Your task to perform on an android device: Open privacy settings Image 0: 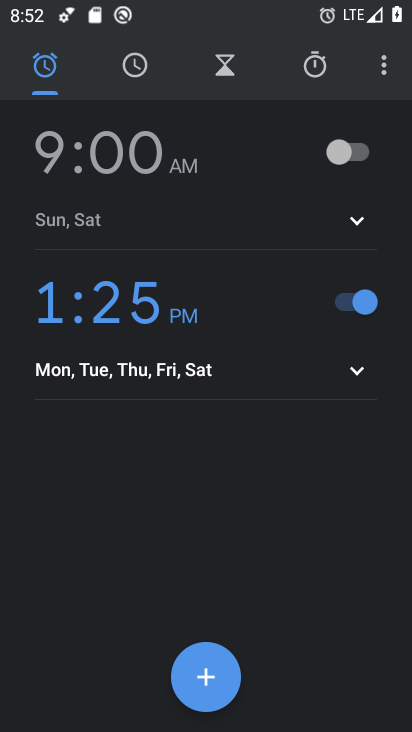
Step 0: press home button
Your task to perform on an android device: Open privacy settings Image 1: 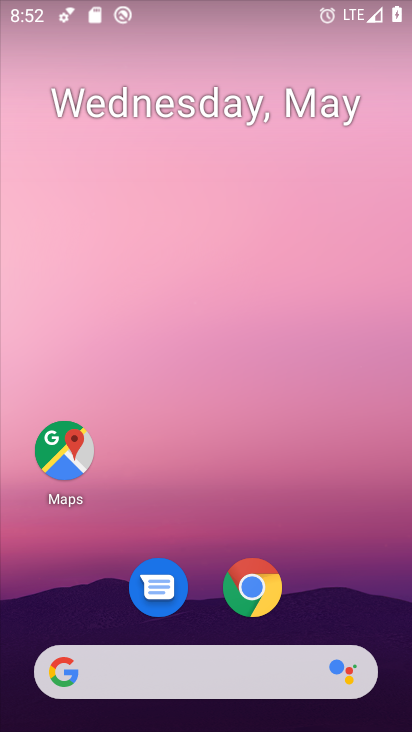
Step 1: drag from (206, 501) to (253, 7)
Your task to perform on an android device: Open privacy settings Image 2: 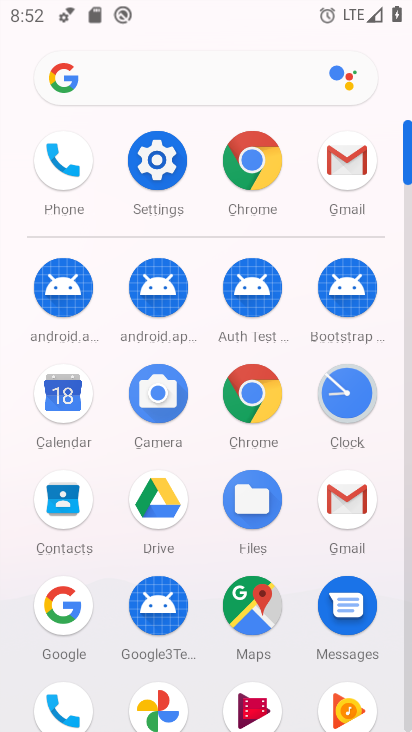
Step 2: click (151, 168)
Your task to perform on an android device: Open privacy settings Image 3: 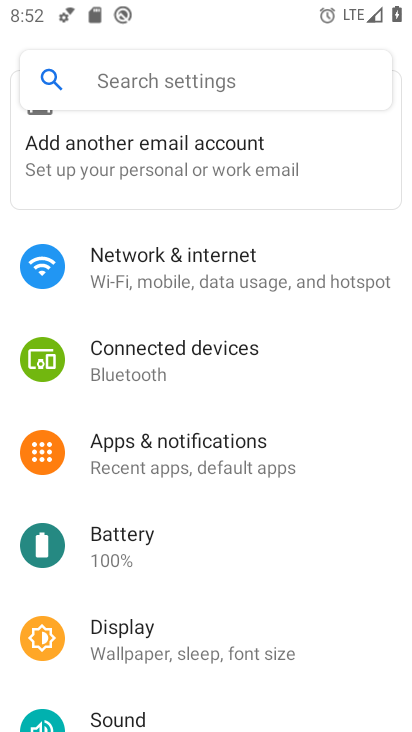
Step 3: drag from (134, 562) to (171, 291)
Your task to perform on an android device: Open privacy settings Image 4: 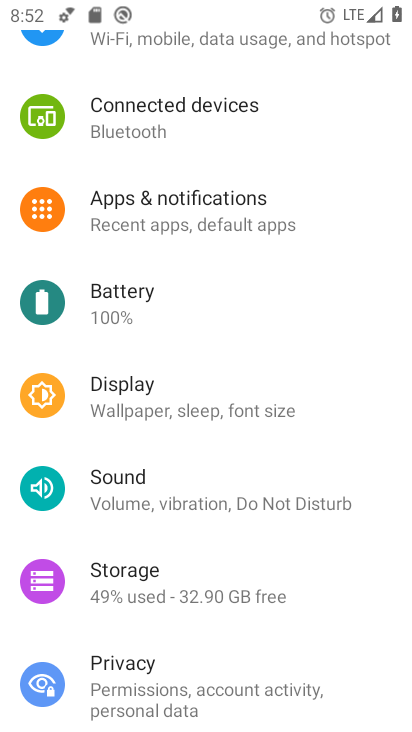
Step 4: drag from (140, 563) to (178, 411)
Your task to perform on an android device: Open privacy settings Image 5: 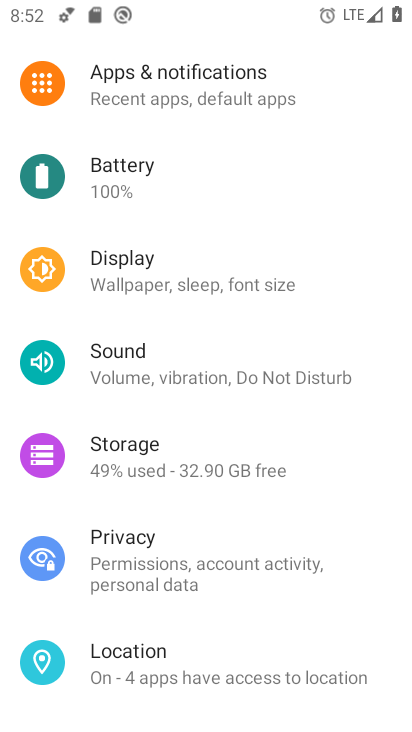
Step 5: click (151, 574)
Your task to perform on an android device: Open privacy settings Image 6: 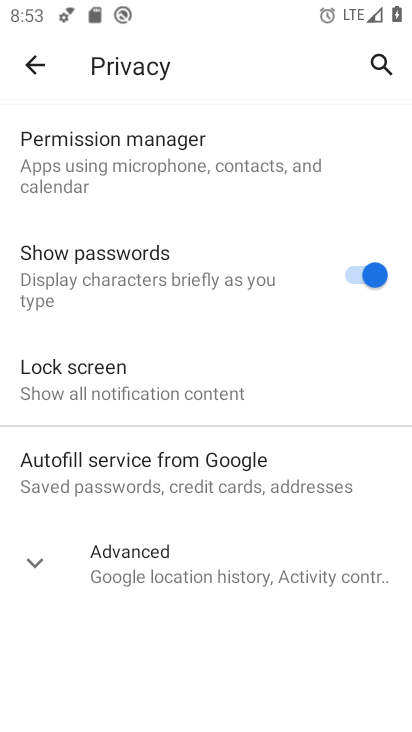
Step 6: task complete